Your task to perform on an android device: open app "Facebook" (install if not already installed), go to login, and select forgot password Image 0: 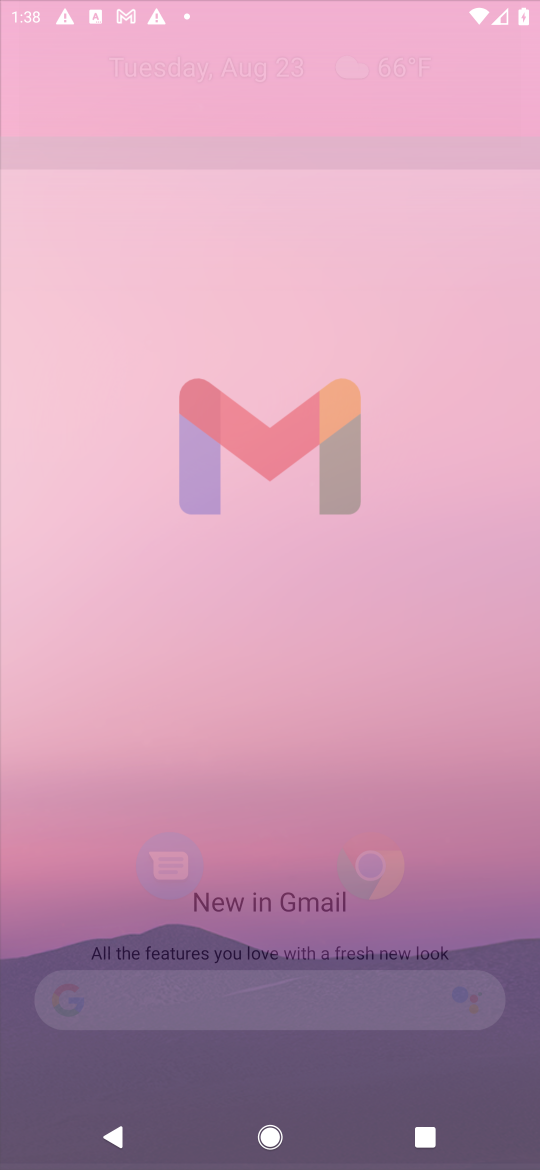
Step 0: press home button
Your task to perform on an android device: open app "Facebook" (install if not already installed), go to login, and select forgot password Image 1: 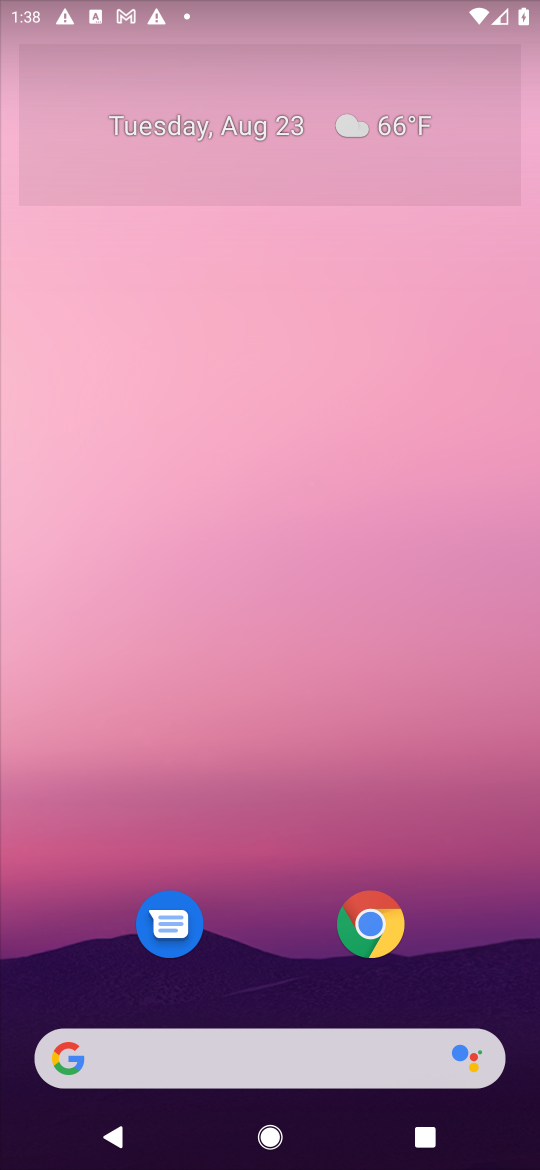
Step 1: drag from (468, 966) to (466, 229)
Your task to perform on an android device: open app "Facebook" (install if not already installed), go to login, and select forgot password Image 2: 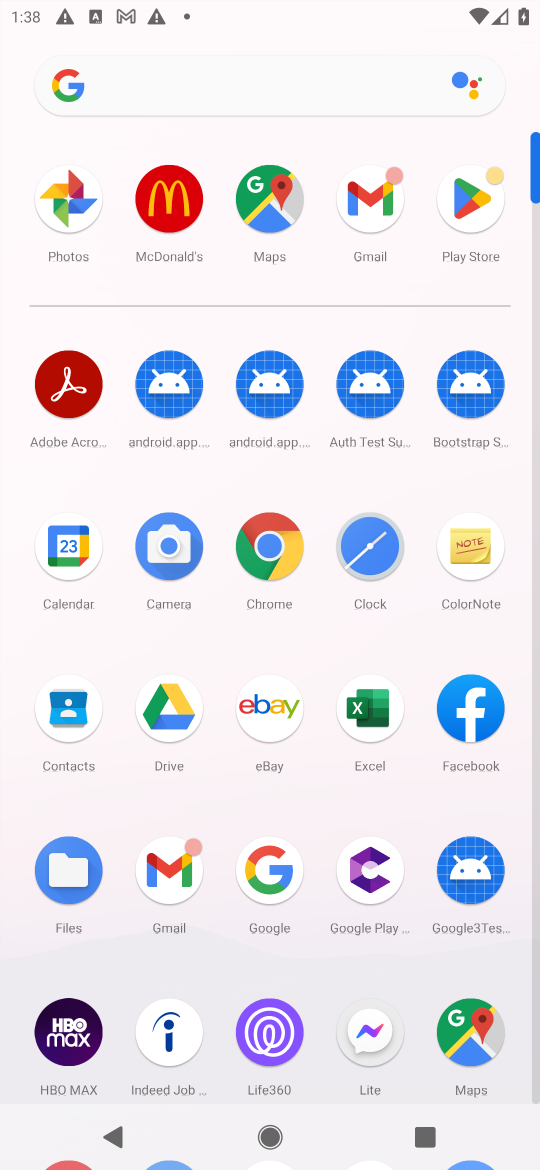
Step 2: click (483, 200)
Your task to perform on an android device: open app "Facebook" (install if not already installed), go to login, and select forgot password Image 3: 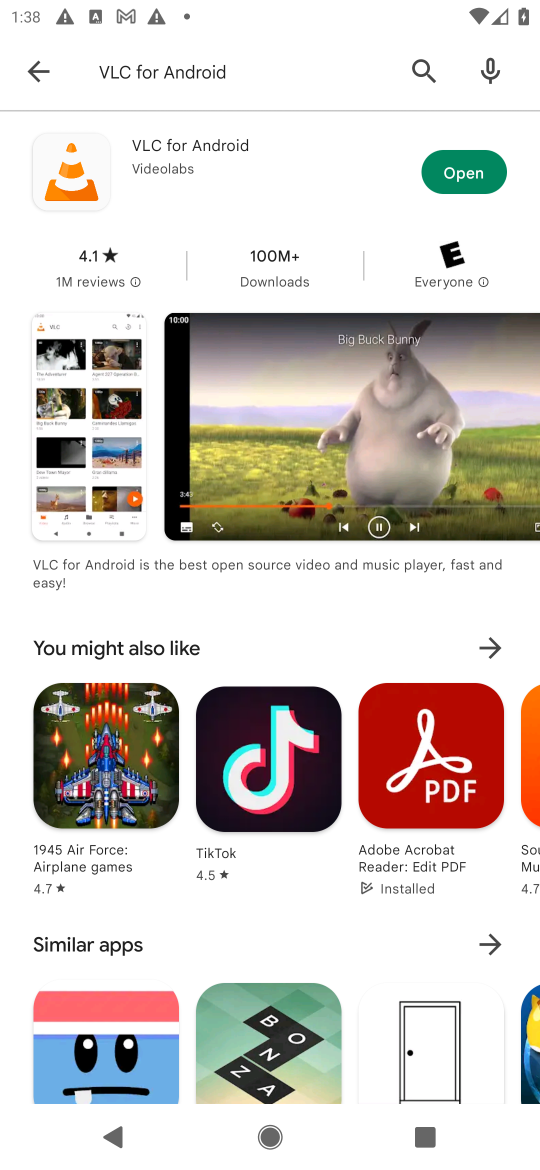
Step 3: press back button
Your task to perform on an android device: open app "Facebook" (install if not already installed), go to login, and select forgot password Image 4: 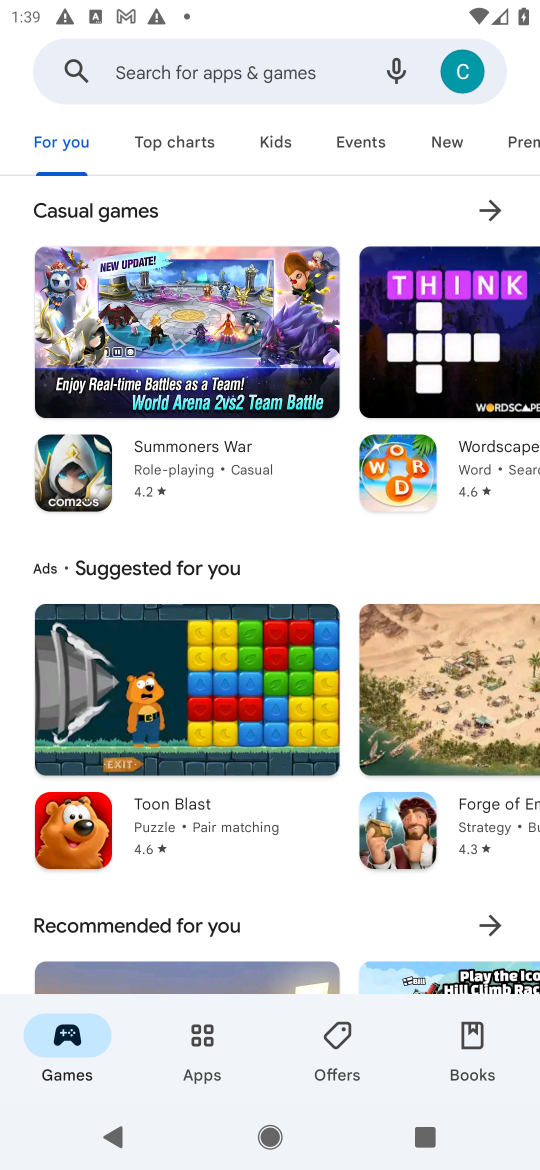
Step 4: click (247, 64)
Your task to perform on an android device: open app "Facebook" (install if not already installed), go to login, and select forgot password Image 5: 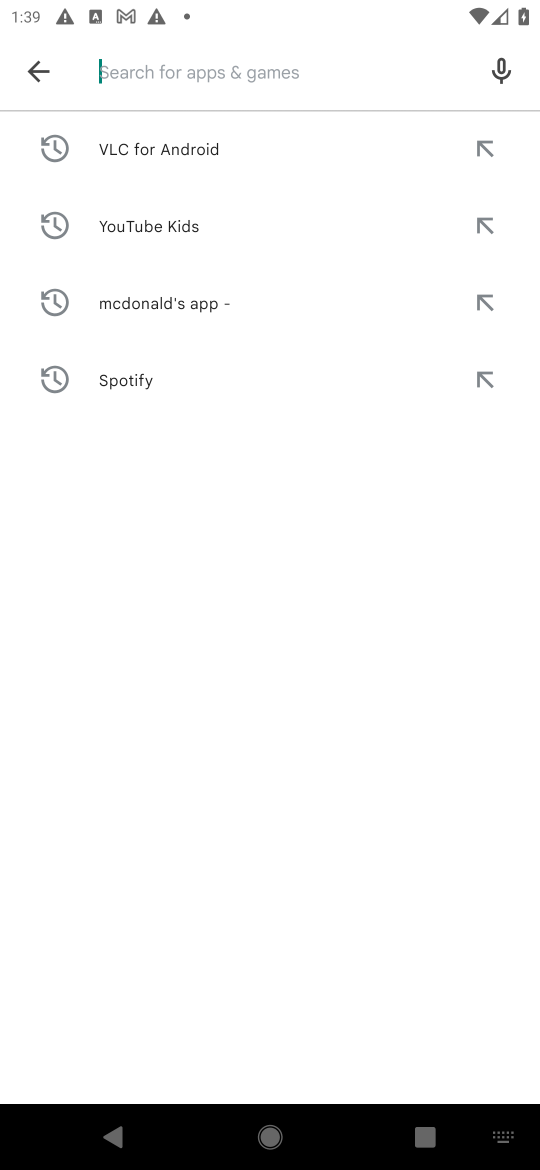
Step 5: press enter
Your task to perform on an android device: open app "Facebook" (install if not already installed), go to login, and select forgot password Image 6: 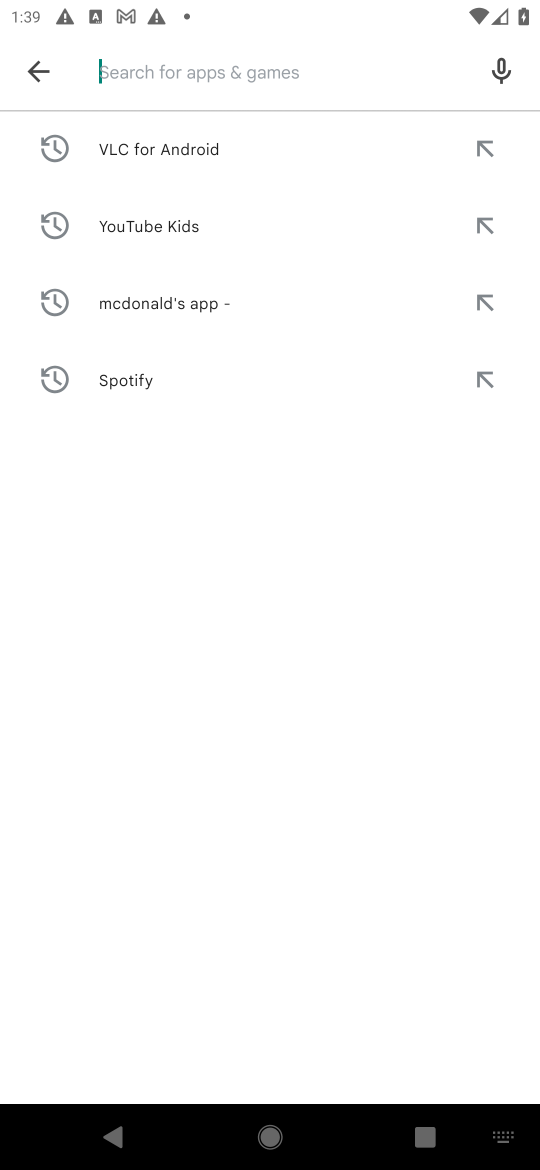
Step 6: type "facebook"
Your task to perform on an android device: open app "Facebook" (install if not already installed), go to login, and select forgot password Image 7: 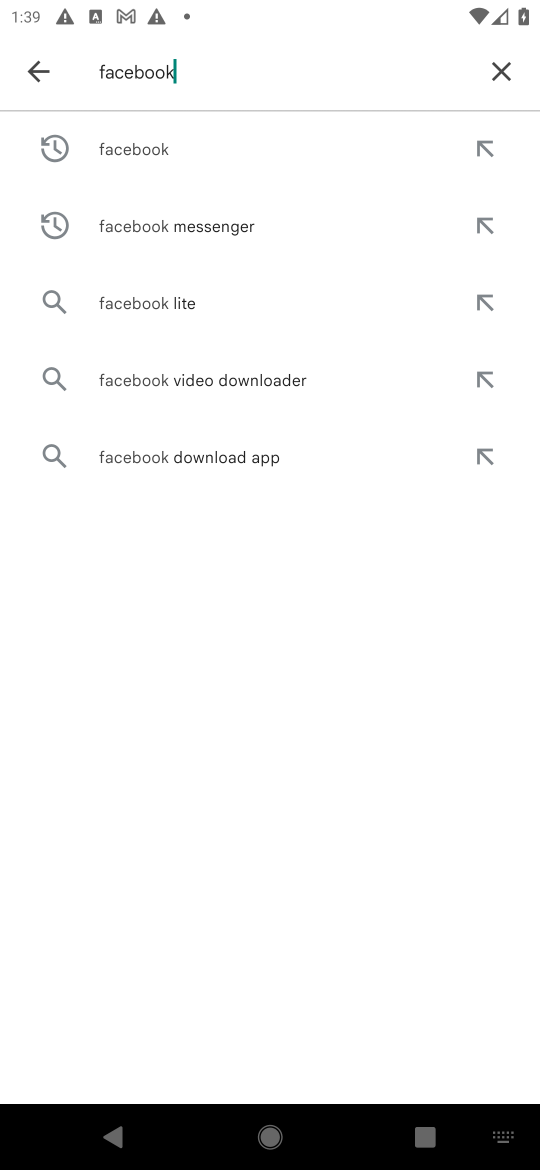
Step 7: click (134, 152)
Your task to perform on an android device: open app "Facebook" (install if not already installed), go to login, and select forgot password Image 8: 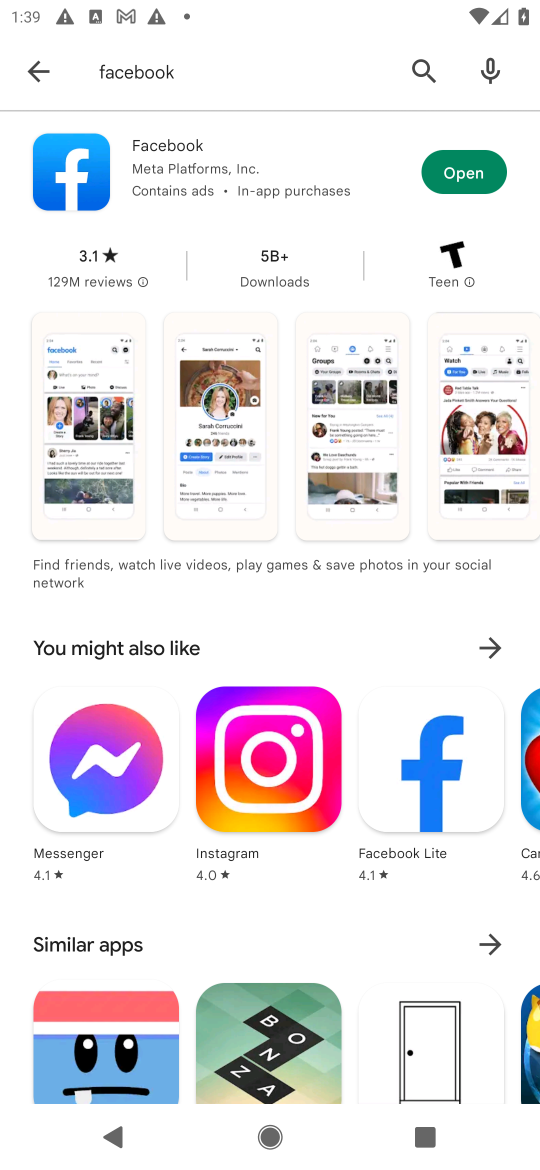
Step 8: click (484, 171)
Your task to perform on an android device: open app "Facebook" (install if not already installed), go to login, and select forgot password Image 9: 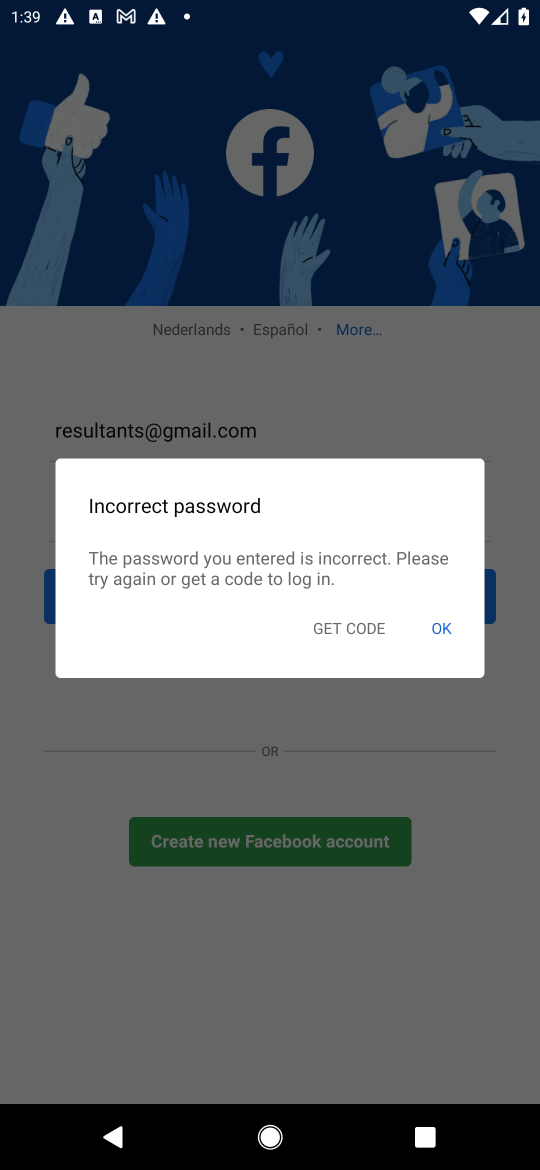
Step 9: click (430, 630)
Your task to perform on an android device: open app "Facebook" (install if not already installed), go to login, and select forgot password Image 10: 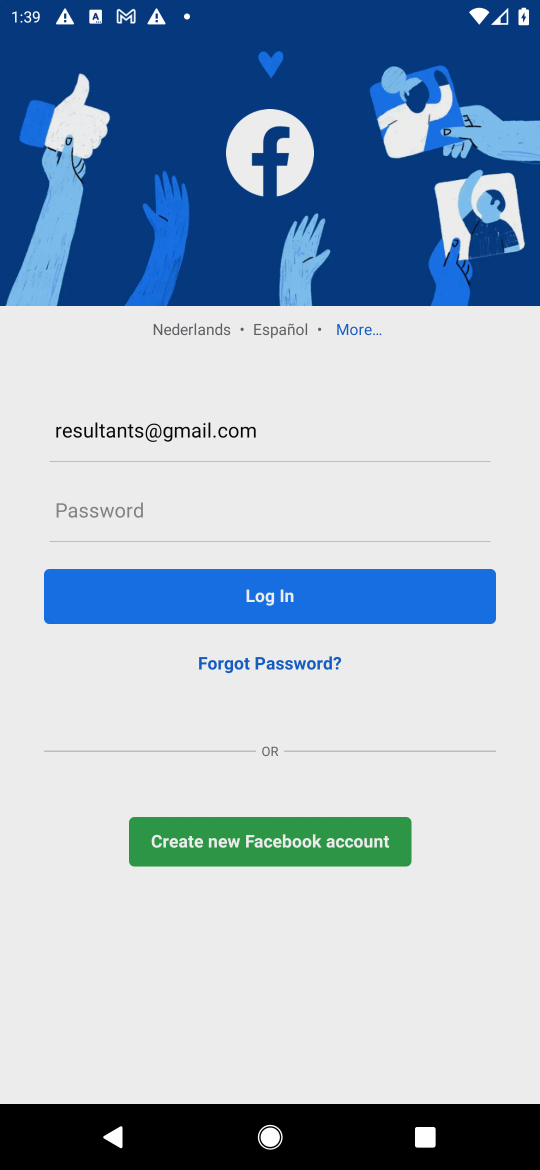
Step 10: click (295, 655)
Your task to perform on an android device: open app "Facebook" (install if not already installed), go to login, and select forgot password Image 11: 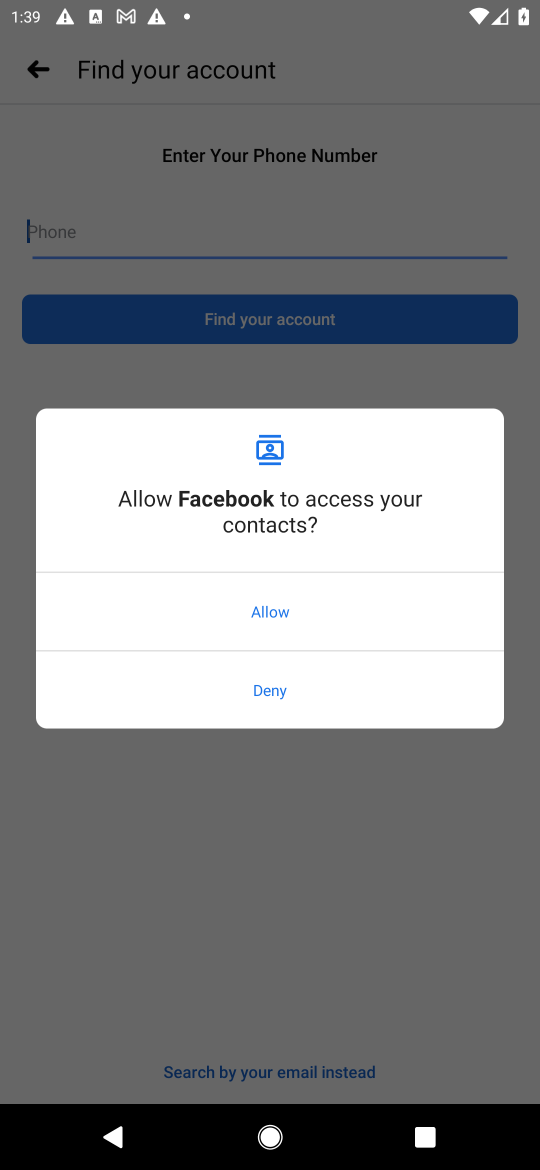
Step 11: task complete